Your task to perform on an android device: all mails in gmail Image 0: 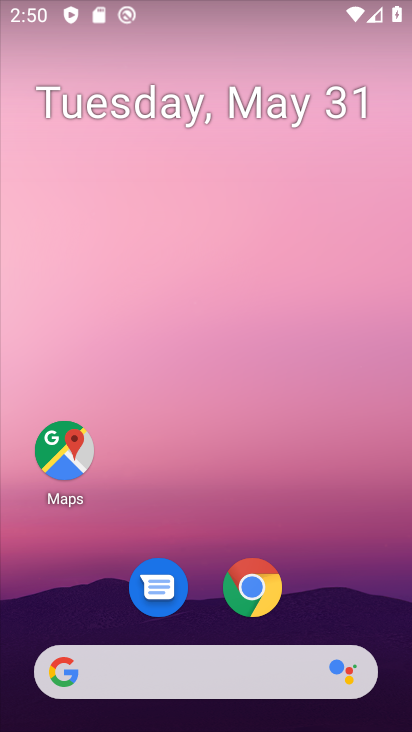
Step 0: drag from (308, 590) to (301, 63)
Your task to perform on an android device: all mails in gmail Image 1: 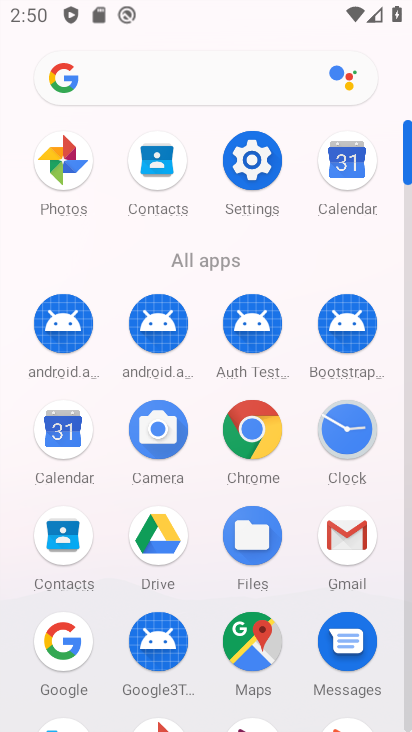
Step 1: click (333, 543)
Your task to perform on an android device: all mails in gmail Image 2: 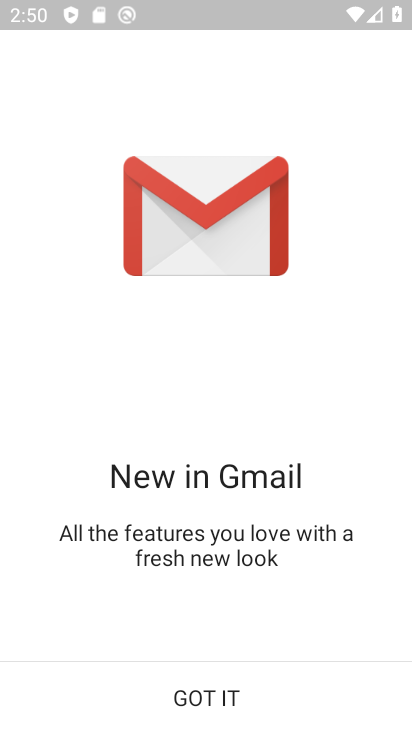
Step 2: click (229, 691)
Your task to perform on an android device: all mails in gmail Image 3: 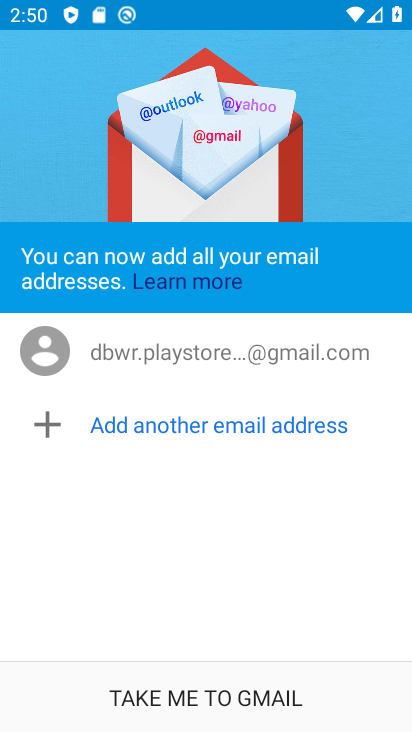
Step 3: click (267, 698)
Your task to perform on an android device: all mails in gmail Image 4: 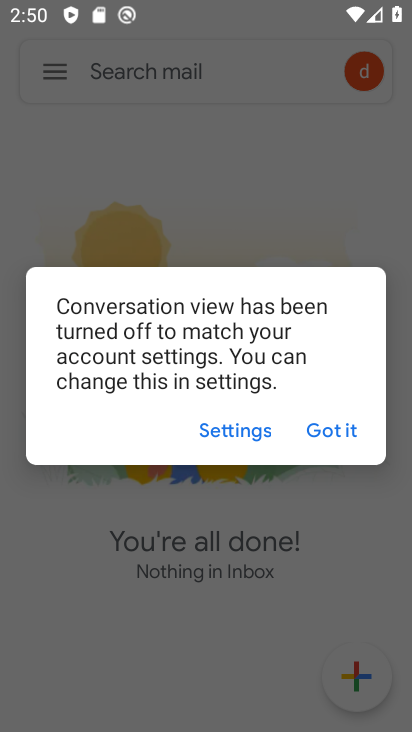
Step 4: click (345, 429)
Your task to perform on an android device: all mails in gmail Image 5: 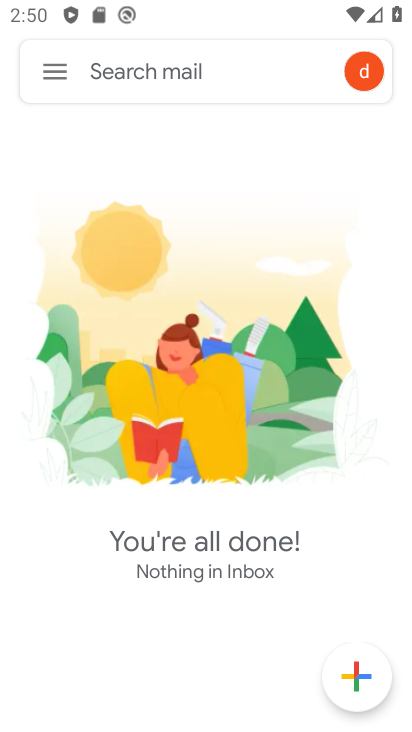
Step 5: click (52, 71)
Your task to perform on an android device: all mails in gmail Image 6: 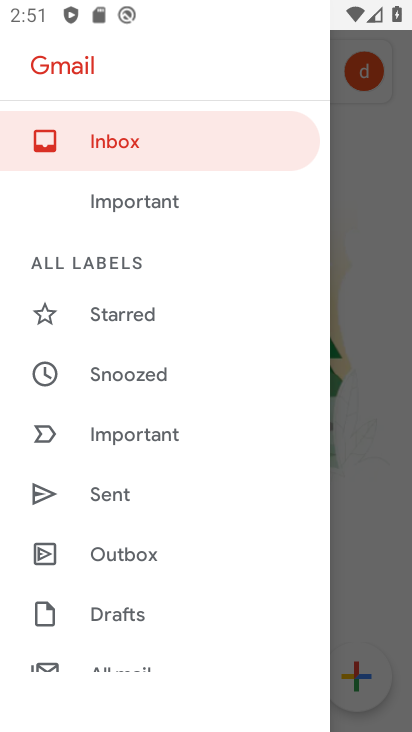
Step 6: drag from (133, 622) to (177, 272)
Your task to perform on an android device: all mails in gmail Image 7: 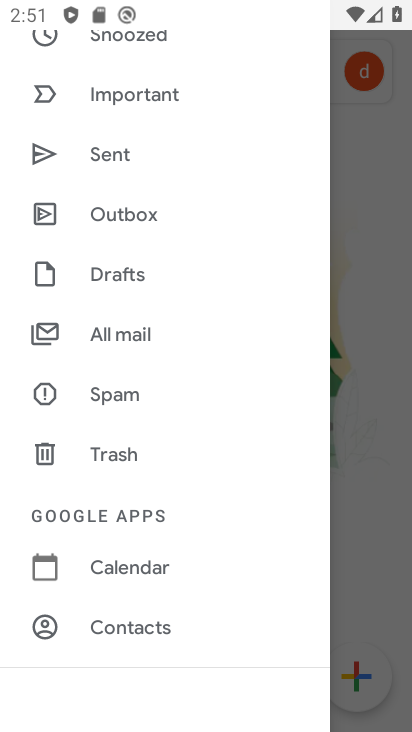
Step 7: click (118, 340)
Your task to perform on an android device: all mails in gmail Image 8: 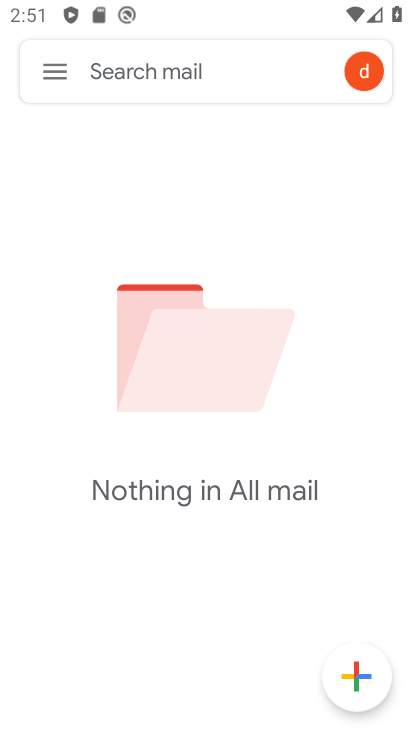
Step 8: task complete